Your task to perform on an android device: turn off notifications in google photos Image 0: 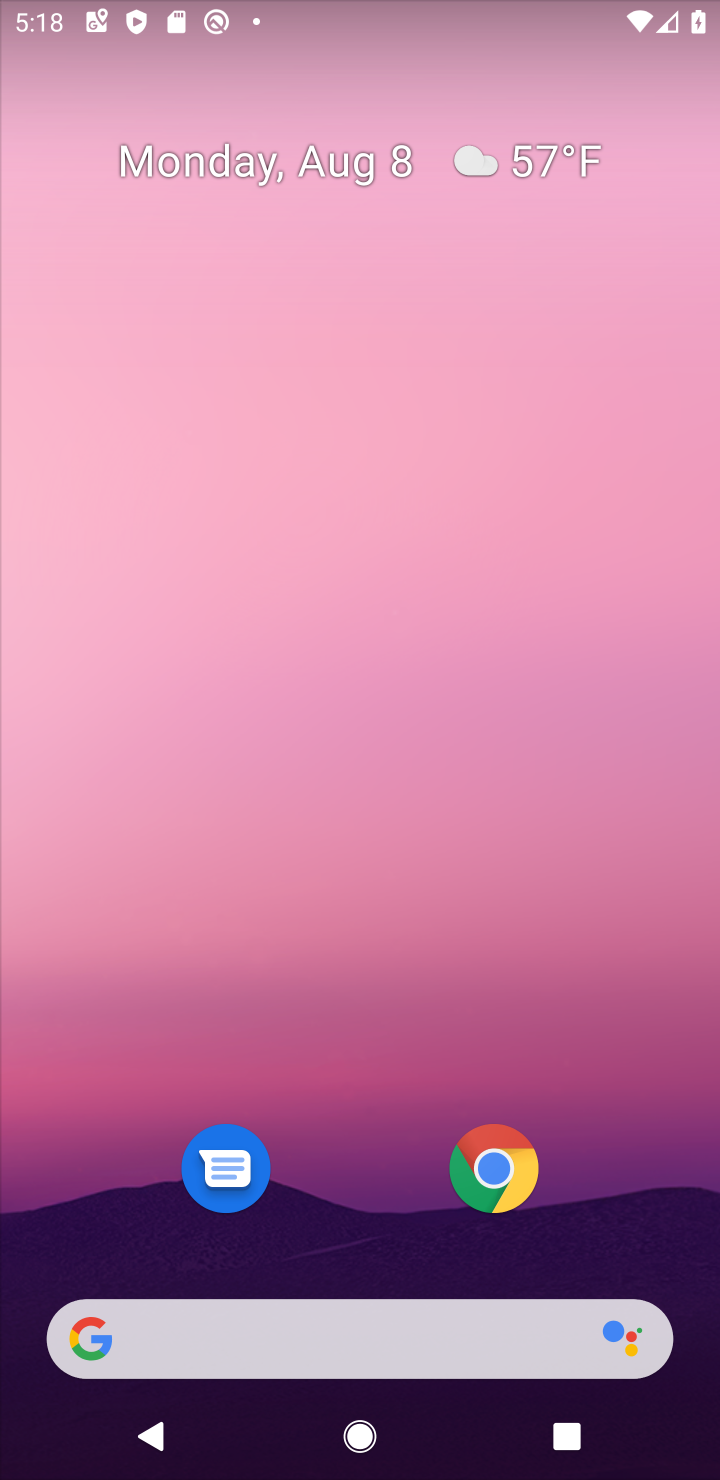
Step 0: drag from (420, 1328) to (434, 465)
Your task to perform on an android device: turn off notifications in google photos Image 1: 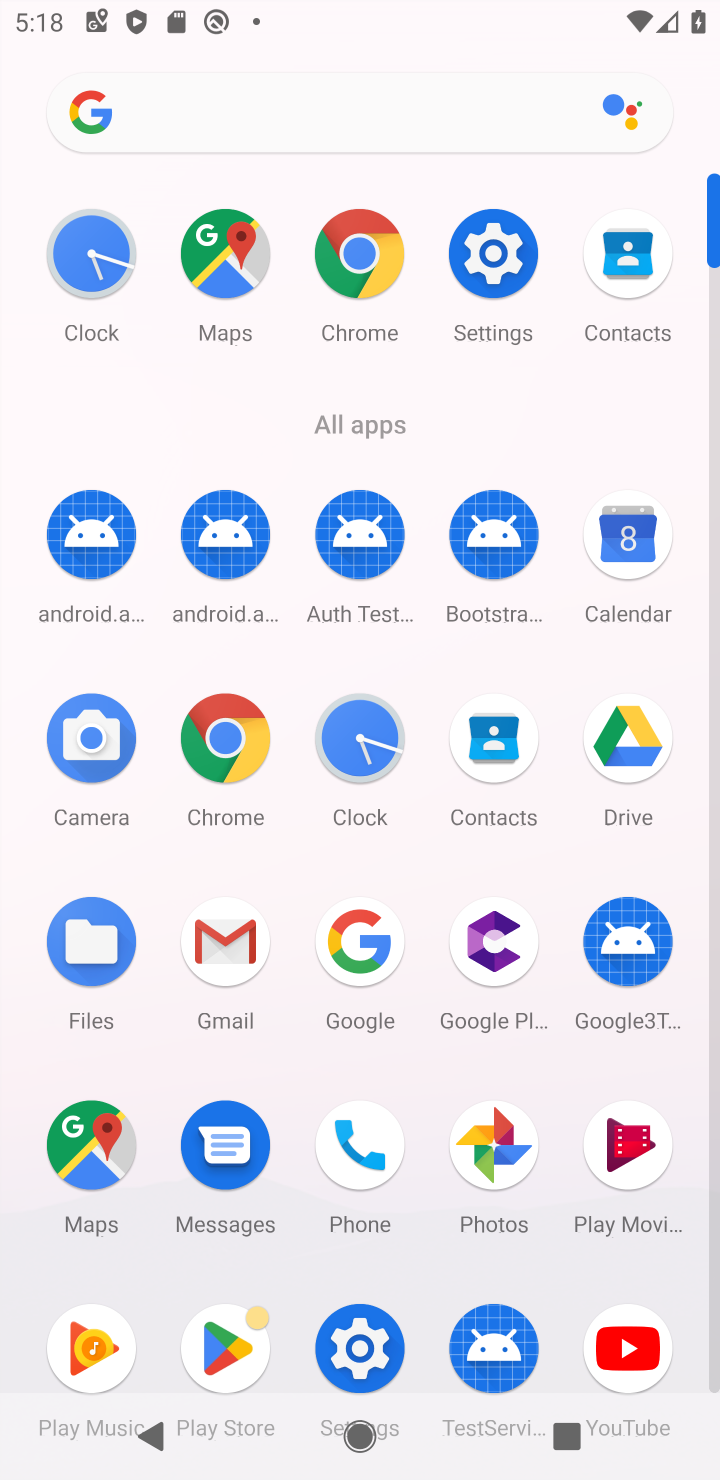
Step 1: click (487, 1178)
Your task to perform on an android device: turn off notifications in google photos Image 2: 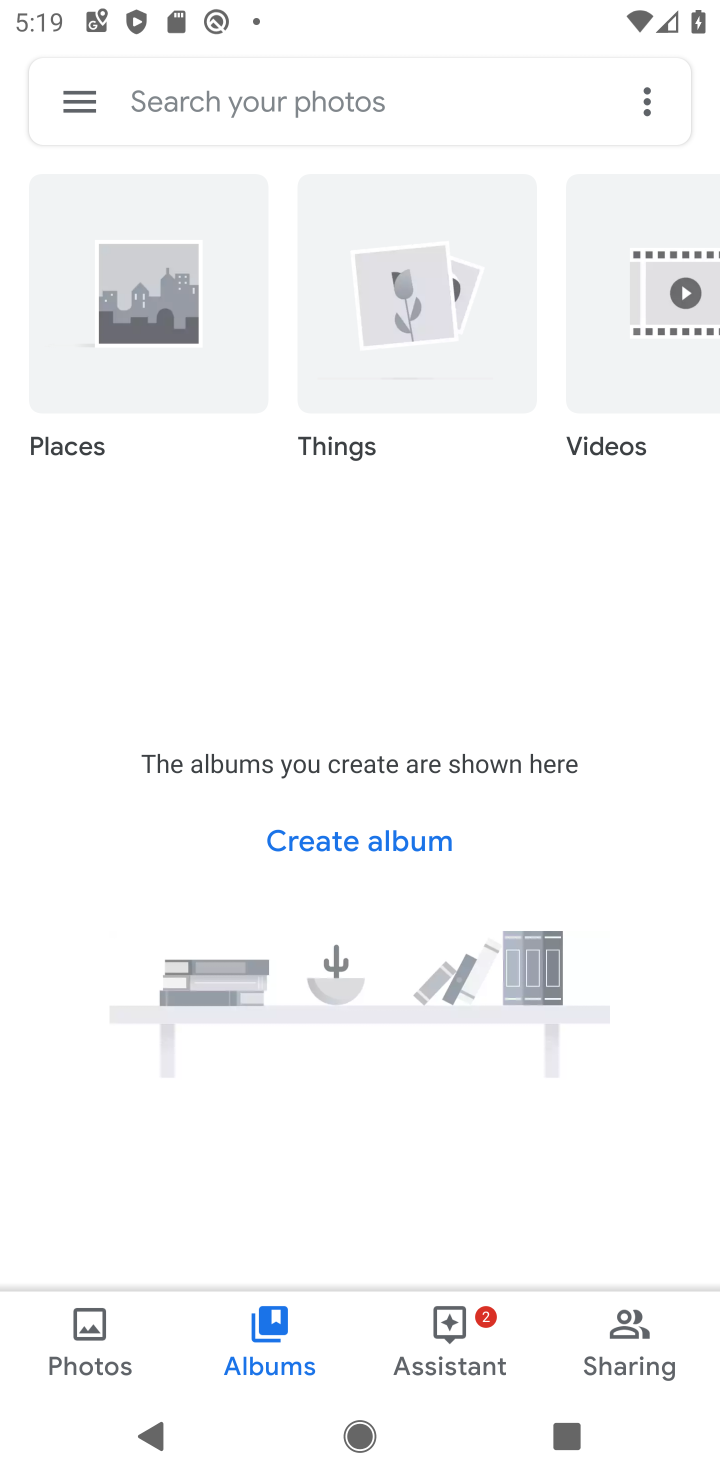
Step 2: click (84, 107)
Your task to perform on an android device: turn off notifications in google photos Image 3: 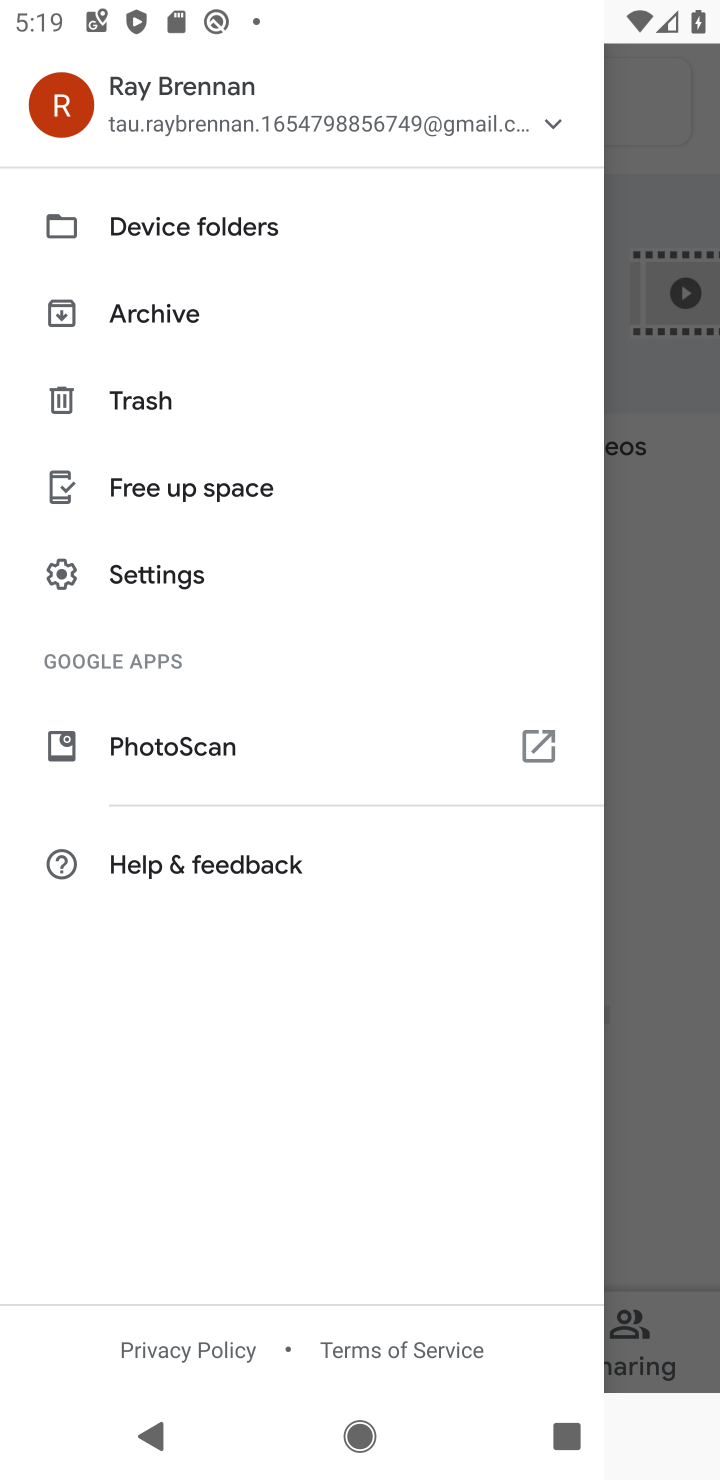
Step 3: click (173, 580)
Your task to perform on an android device: turn off notifications in google photos Image 4: 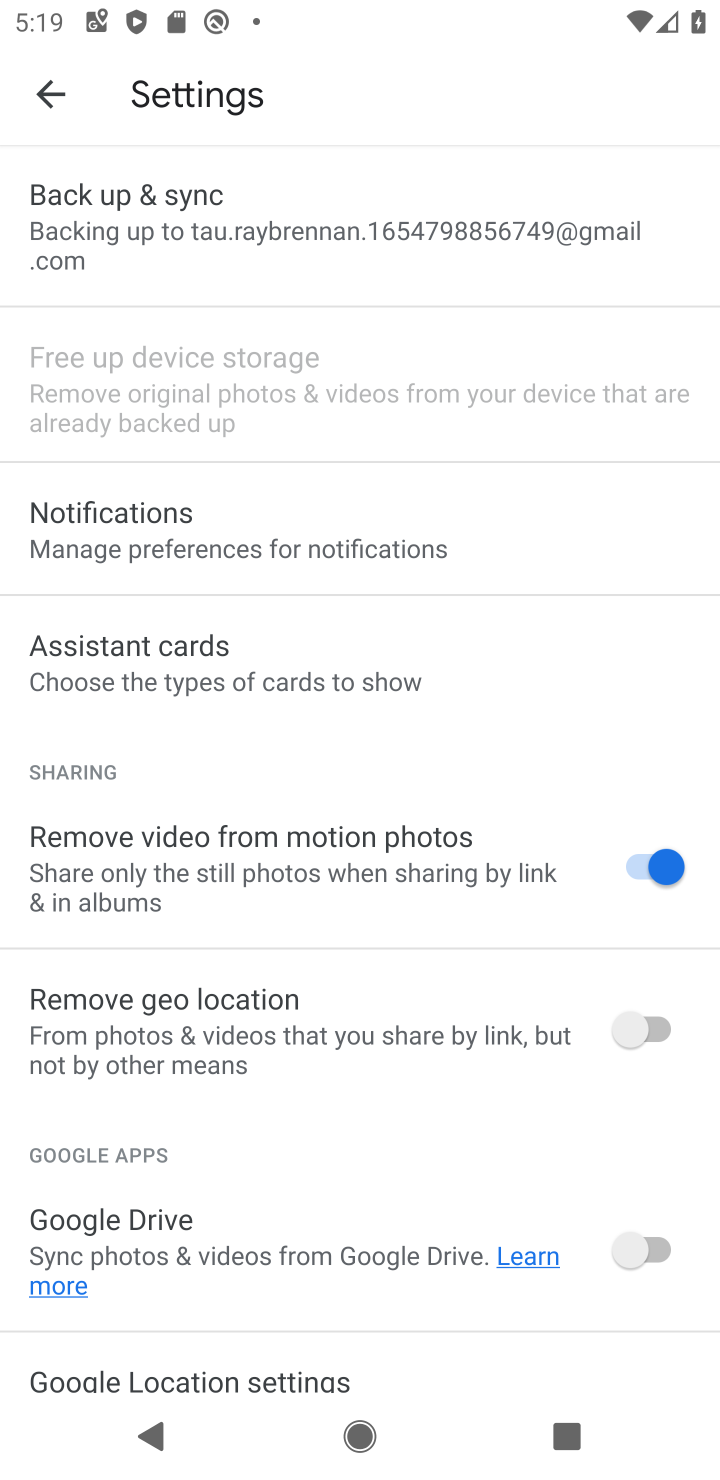
Step 4: click (293, 570)
Your task to perform on an android device: turn off notifications in google photos Image 5: 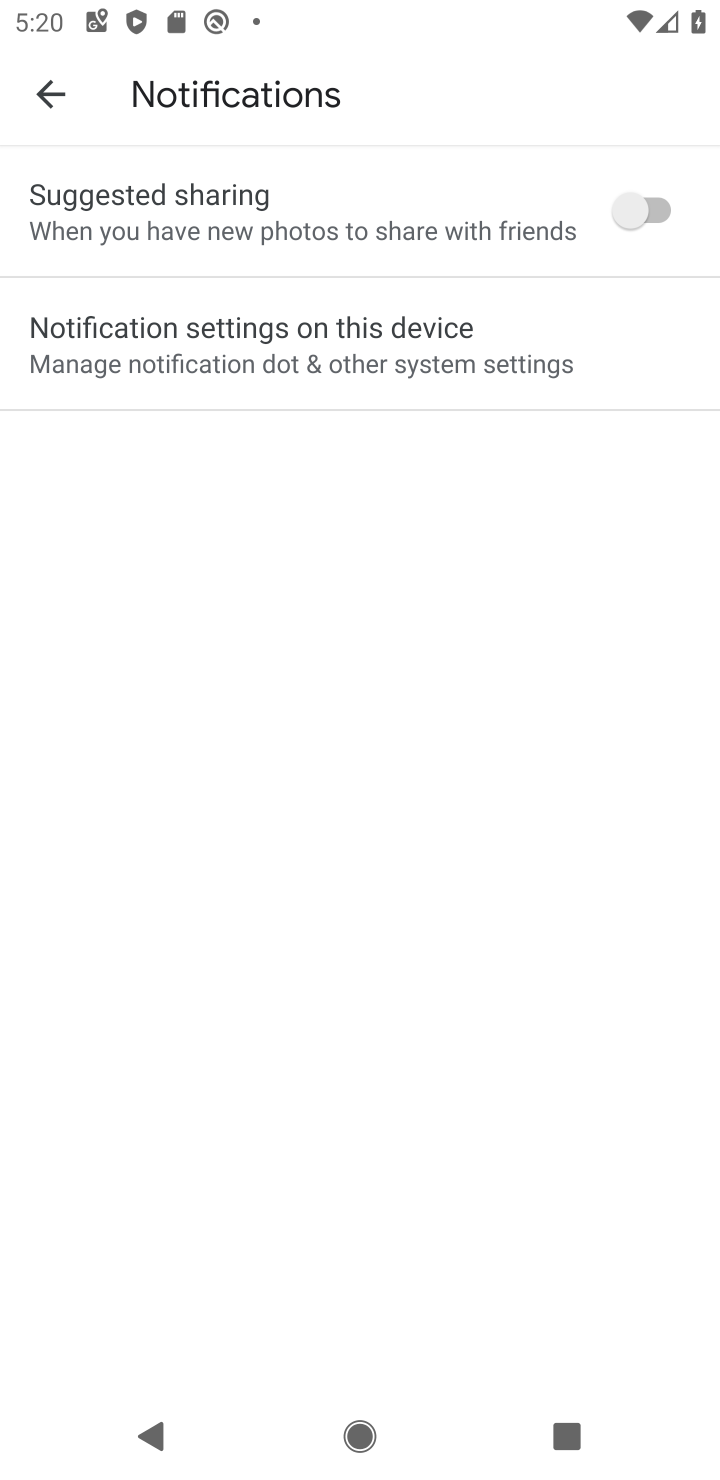
Step 5: click (577, 352)
Your task to perform on an android device: turn off notifications in google photos Image 6: 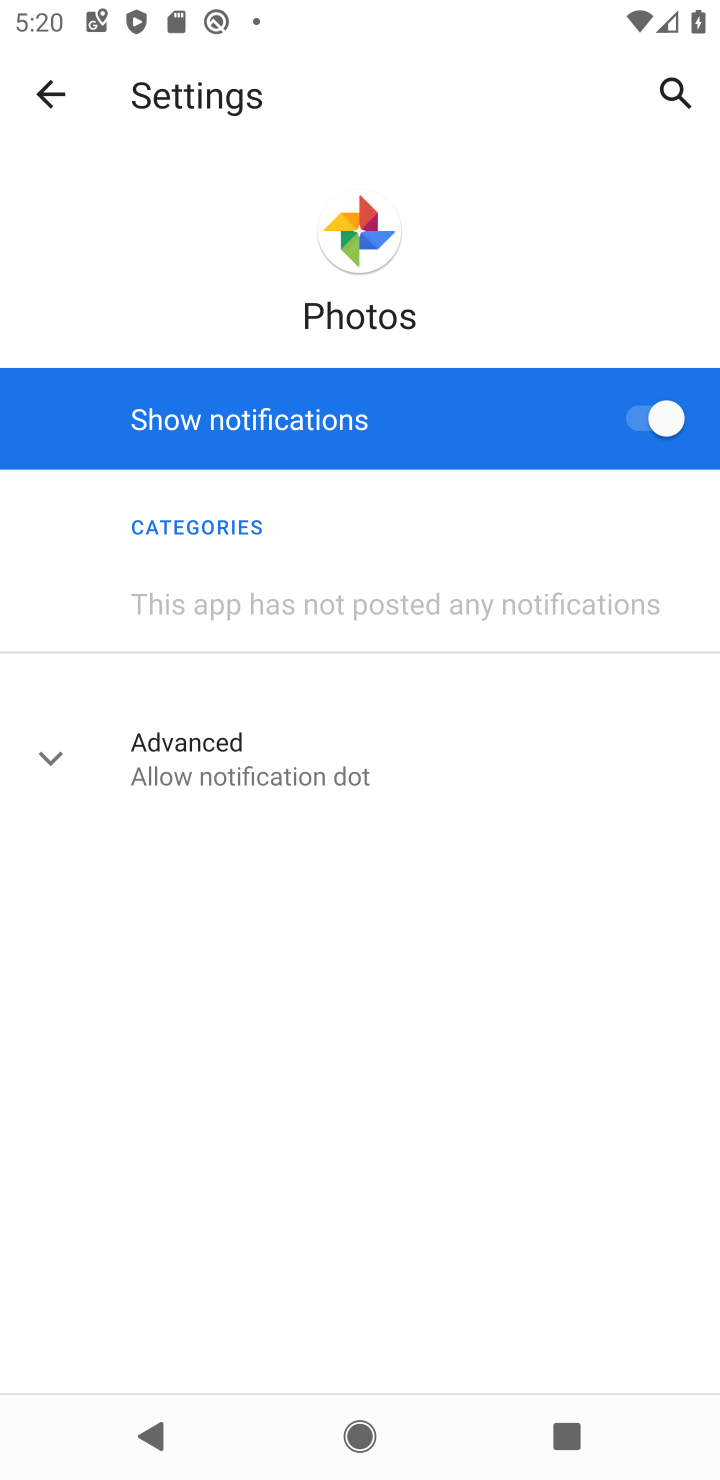
Step 6: click (673, 438)
Your task to perform on an android device: turn off notifications in google photos Image 7: 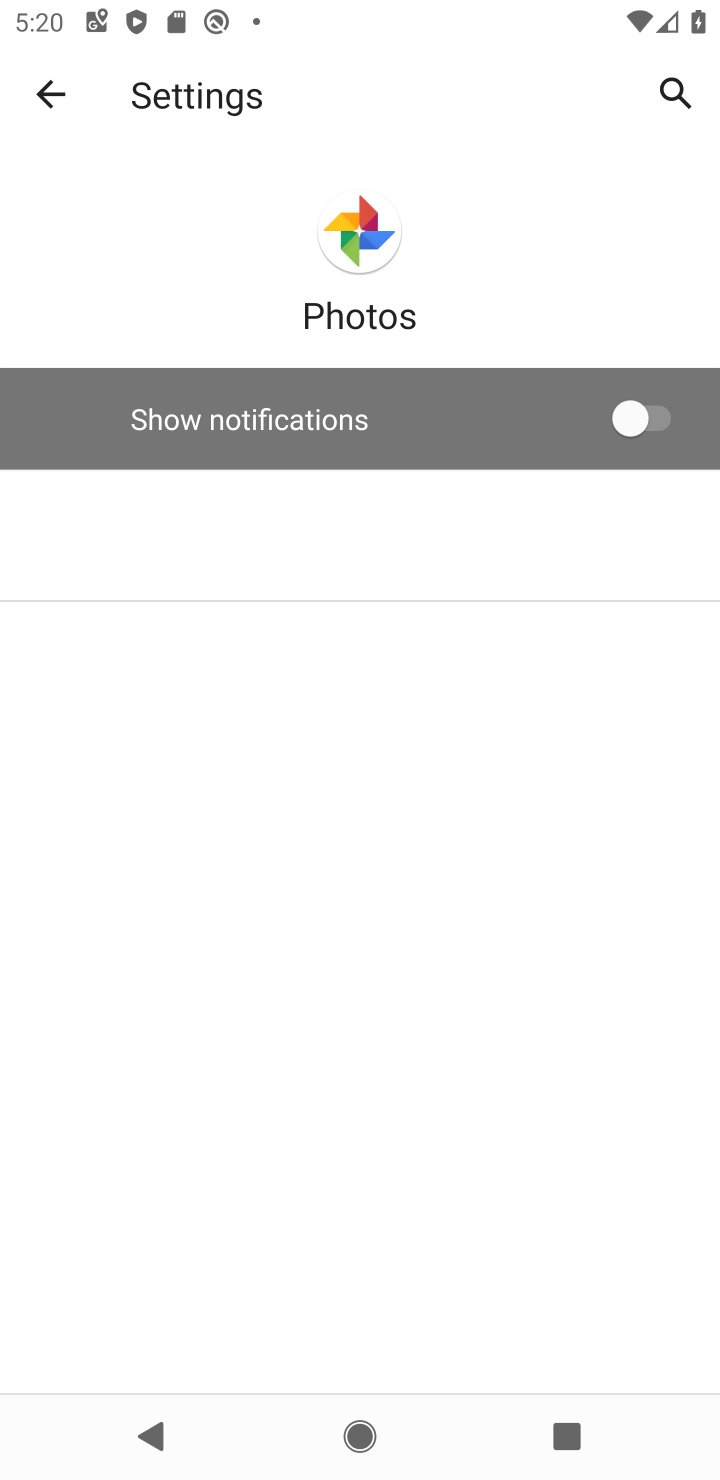
Step 7: task complete